Your task to perform on an android device: turn off javascript in the chrome app Image 0: 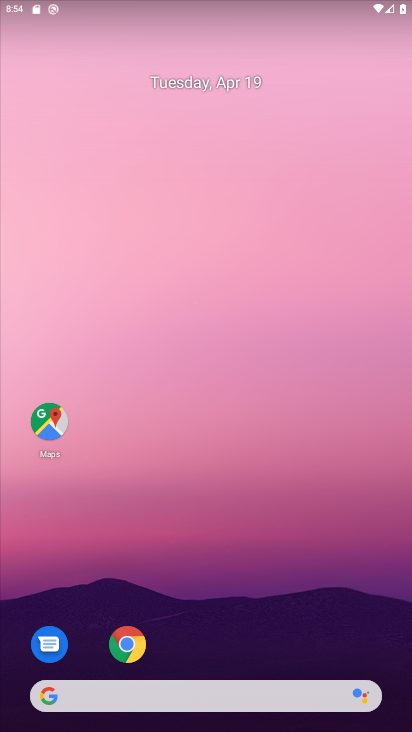
Step 0: drag from (238, 644) to (228, 62)
Your task to perform on an android device: turn off javascript in the chrome app Image 1: 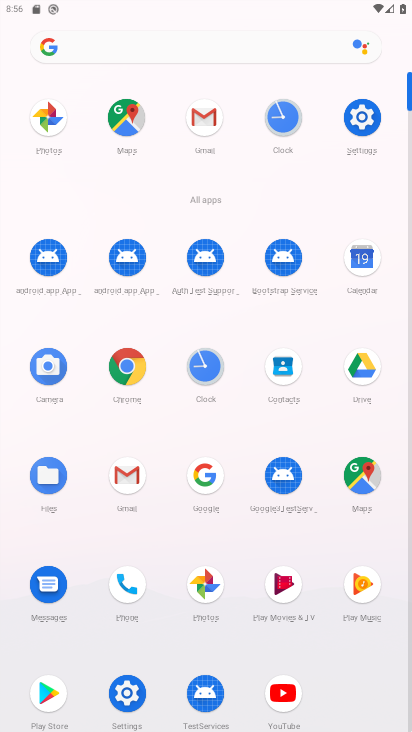
Step 1: click (121, 383)
Your task to perform on an android device: turn off javascript in the chrome app Image 2: 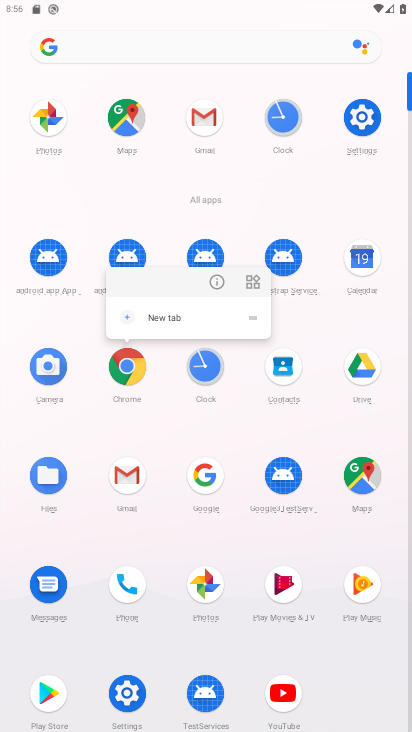
Step 2: click (129, 378)
Your task to perform on an android device: turn off javascript in the chrome app Image 3: 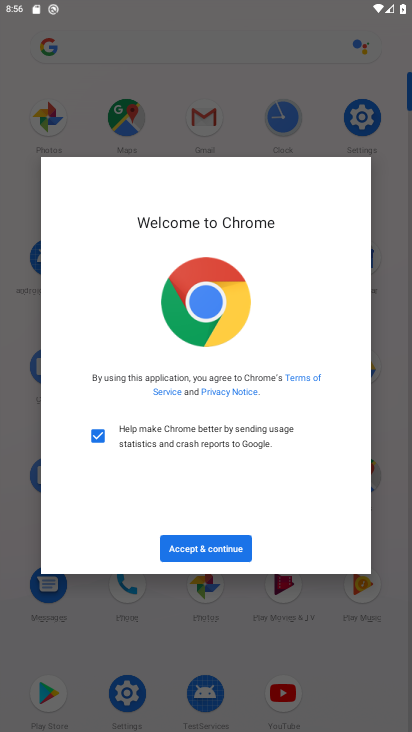
Step 3: click (210, 553)
Your task to perform on an android device: turn off javascript in the chrome app Image 4: 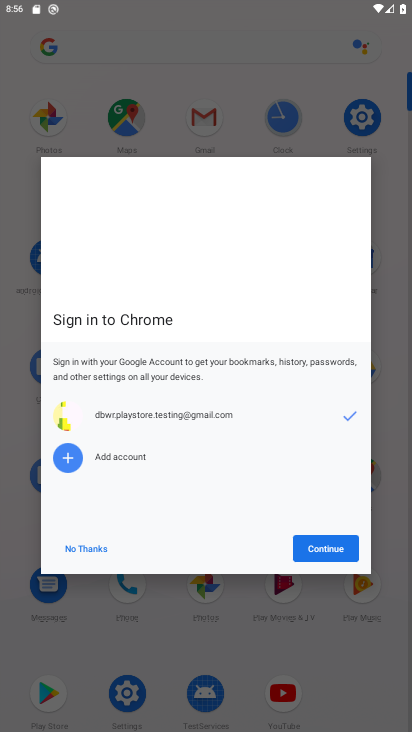
Step 4: click (319, 538)
Your task to perform on an android device: turn off javascript in the chrome app Image 5: 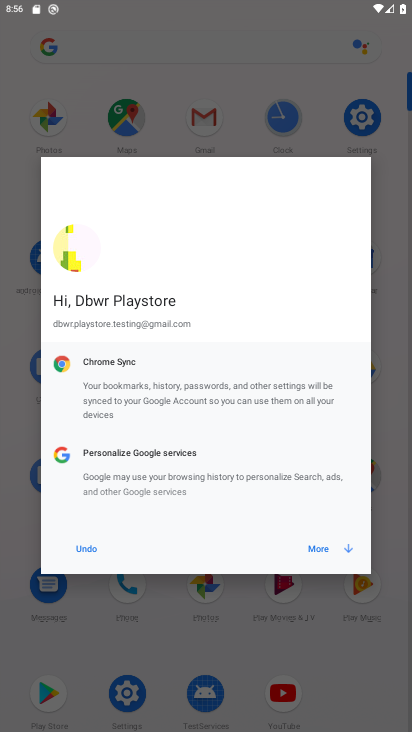
Step 5: click (319, 547)
Your task to perform on an android device: turn off javascript in the chrome app Image 6: 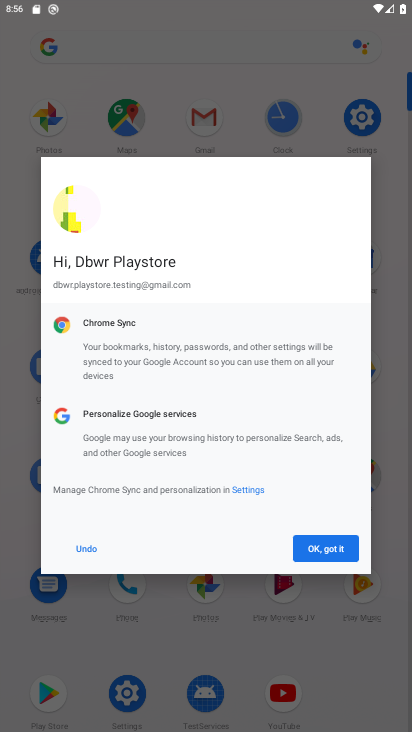
Step 6: click (319, 547)
Your task to perform on an android device: turn off javascript in the chrome app Image 7: 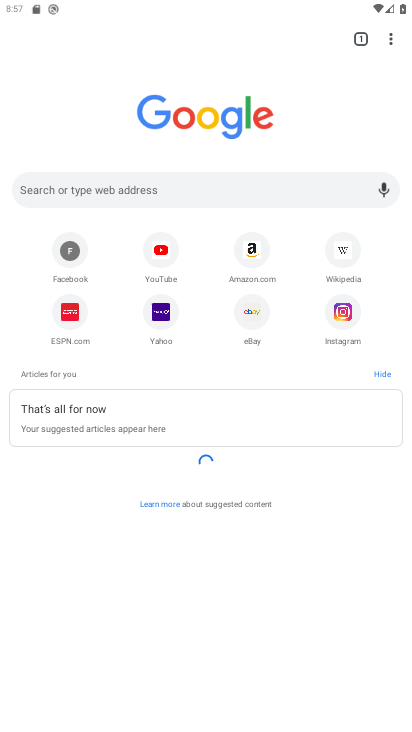
Step 7: click (389, 31)
Your task to perform on an android device: turn off javascript in the chrome app Image 8: 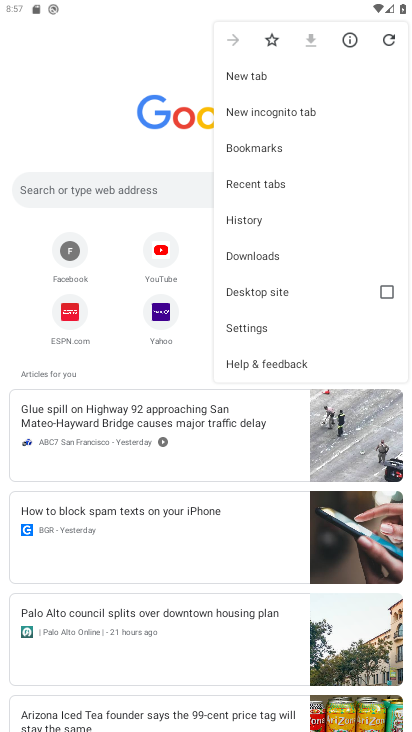
Step 8: click (259, 335)
Your task to perform on an android device: turn off javascript in the chrome app Image 9: 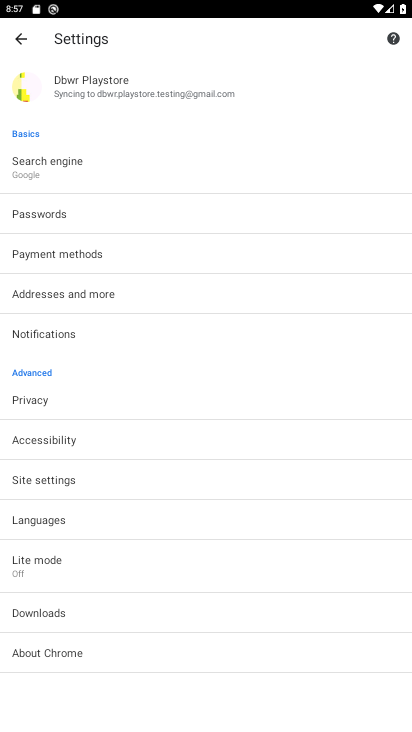
Step 9: click (124, 483)
Your task to perform on an android device: turn off javascript in the chrome app Image 10: 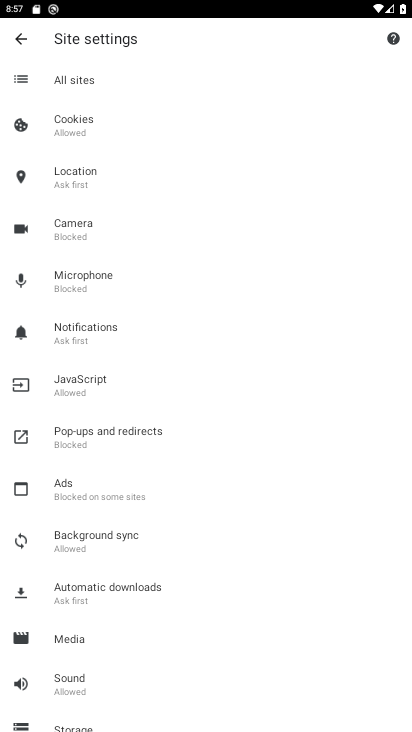
Step 10: click (101, 391)
Your task to perform on an android device: turn off javascript in the chrome app Image 11: 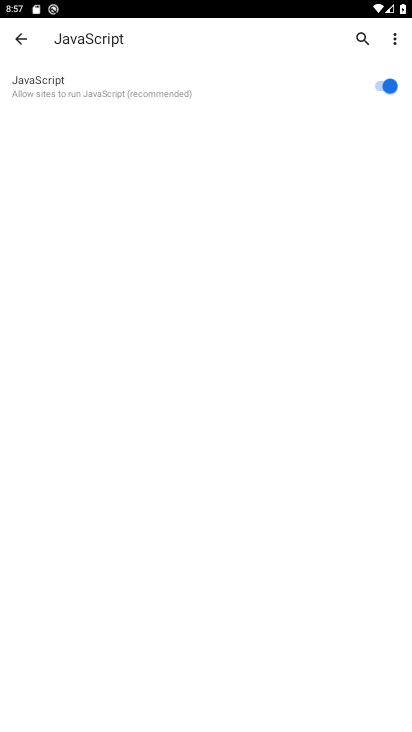
Step 11: click (362, 86)
Your task to perform on an android device: turn off javascript in the chrome app Image 12: 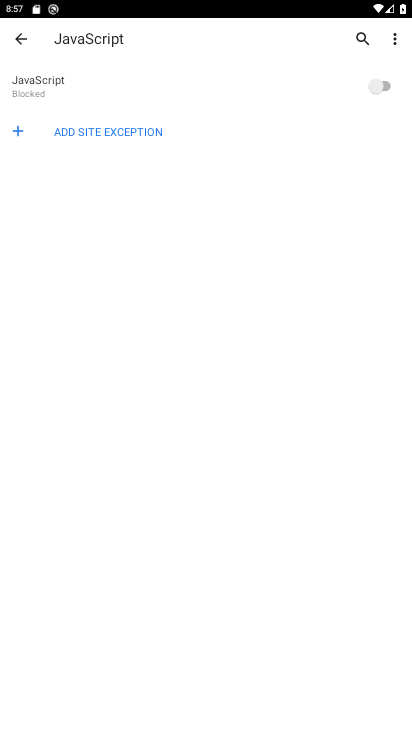
Step 12: task complete